Your task to perform on an android device: change alarm snooze length Image 0: 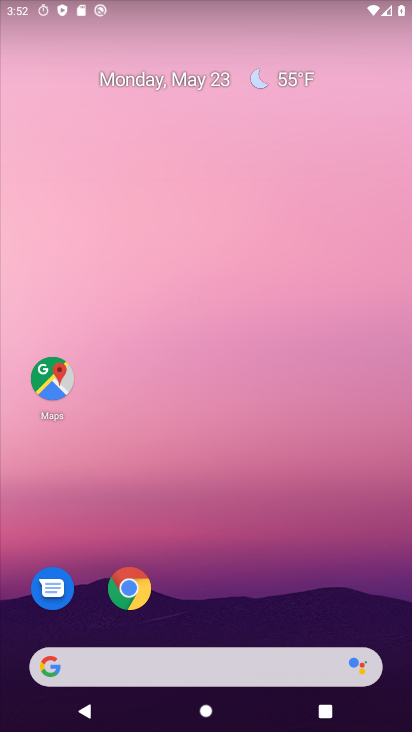
Step 0: drag from (219, 562) to (256, 47)
Your task to perform on an android device: change alarm snooze length Image 1: 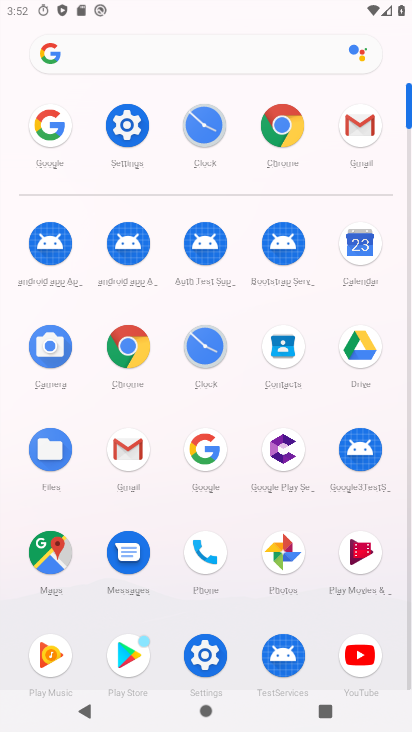
Step 1: click (202, 348)
Your task to perform on an android device: change alarm snooze length Image 2: 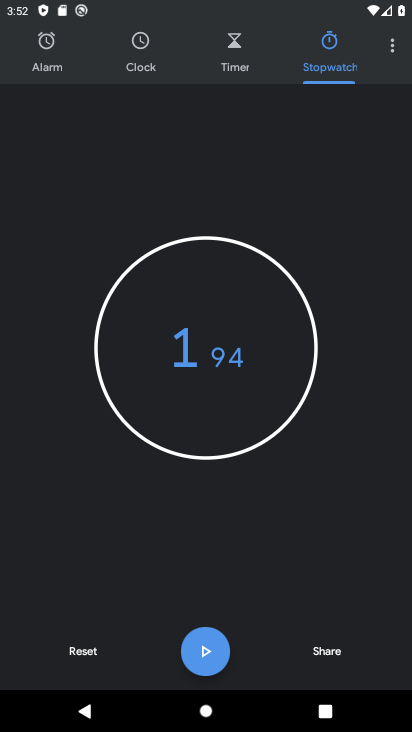
Step 2: click (384, 40)
Your task to perform on an android device: change alarm snooze length Image 3: 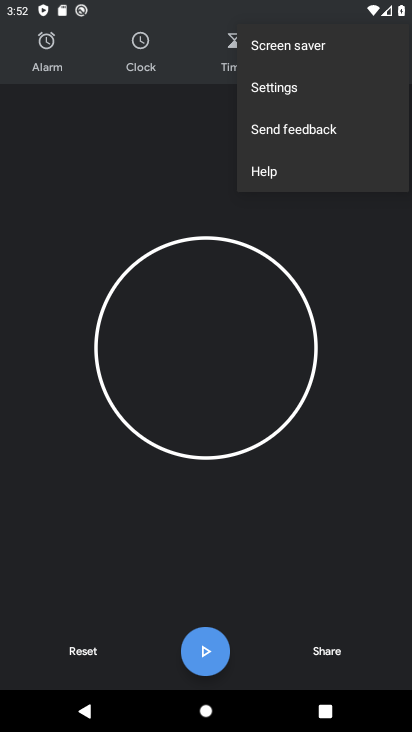
Step 3: click (261, 96)
Your task to perform on an android device: change alarm snooze length Image 4: 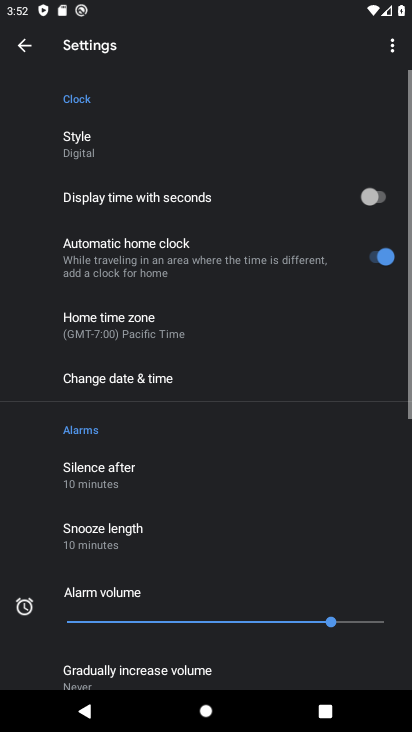
Step 4: click (148, 535)
Your task to perform on an android device: change alarm snooze length Image 5: 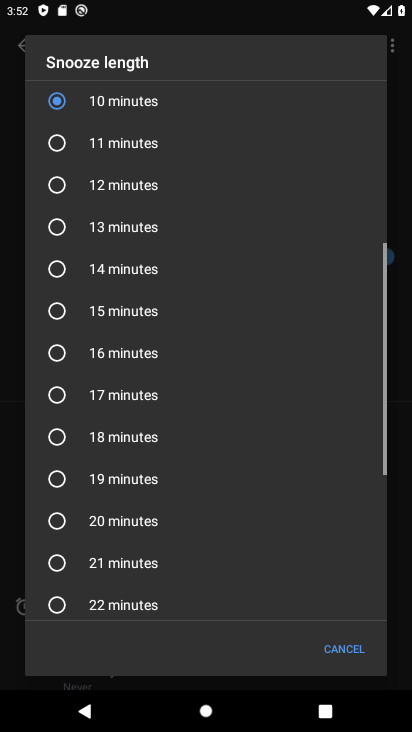
Step 5: click (59, 305)
Your task to perform on an android device: change alarm snooze length Image 6: 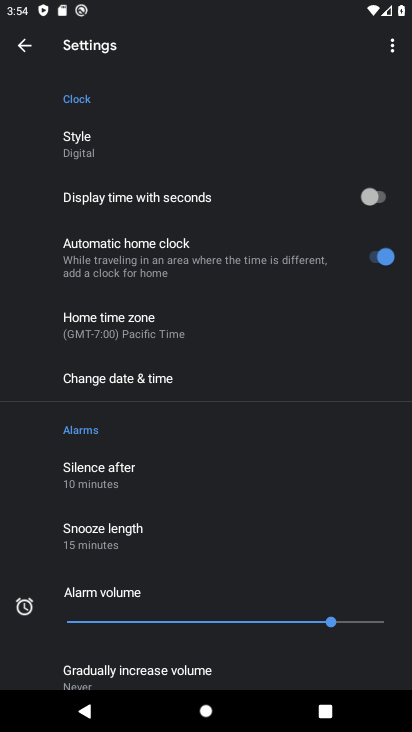
Step 6: task complete